Your task to perform on an android device: toggle data saver in the chrome app Image 0: 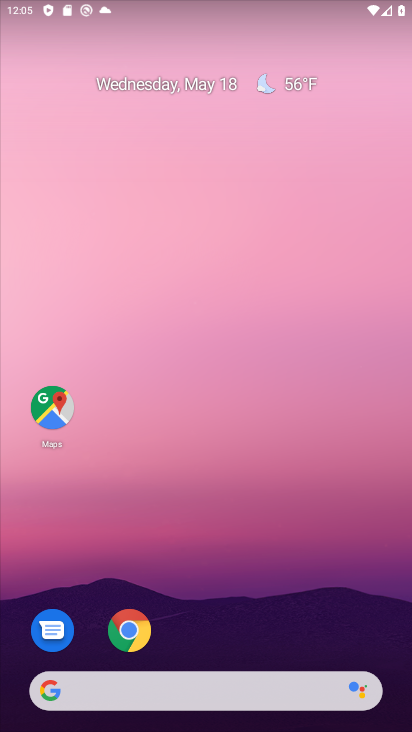
Step 0: click (129, 629)
Your task to perform on an android device: toggle data saver in the chrome app Image 1: 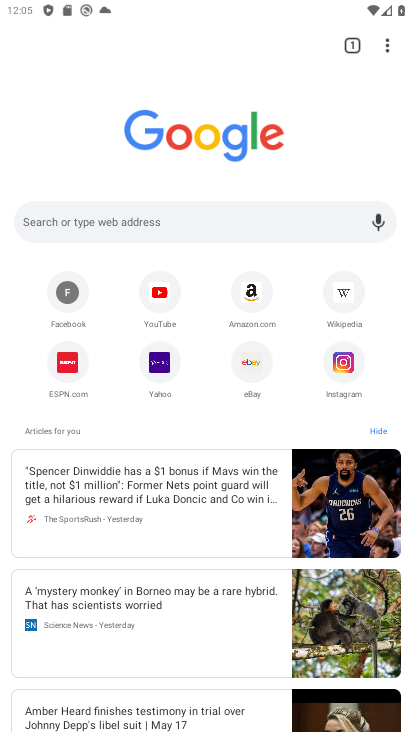
Step 1: click (384, 42)
Your task to perform on an android device: toggle data saver in the chrome app Image 2: 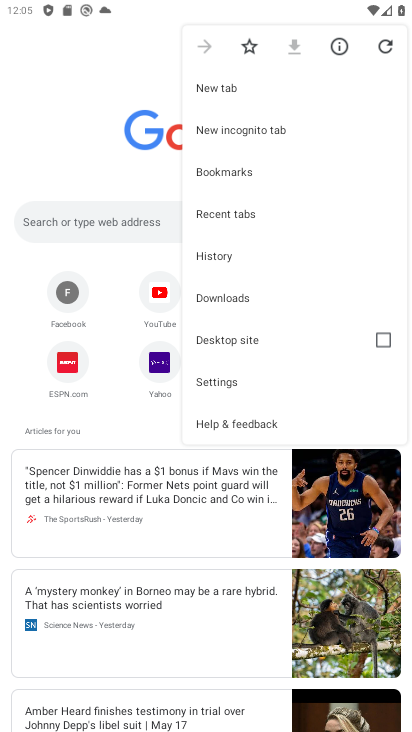
Step 2: click (246, 383)
Your task to perform on an android device: toggle data saver in the chrome app Image 3: 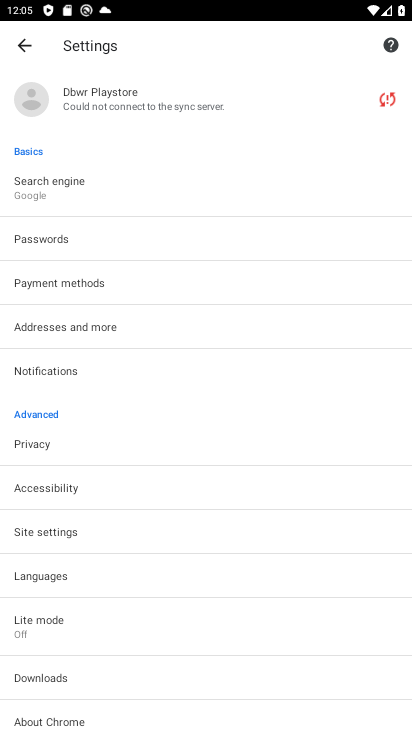
Step 3: drag from (183, 641) to (209, 221)
Your task to perform on an android device: toggle data saver in the chrome app Image 4: 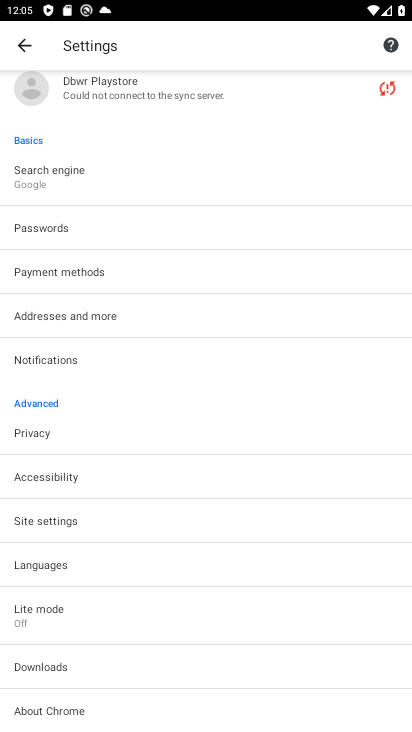
Step 4: click (77, 523)
Your task to perform on an android device: toggle data saver in the chrome app Image 5: 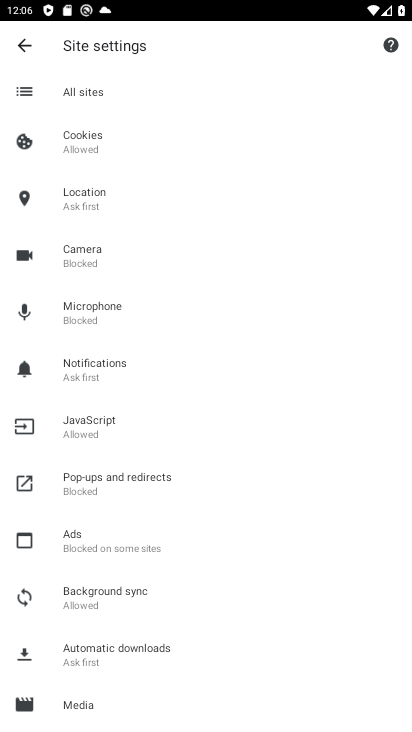
Step 5: drag from (239, 565) to (272, 161)
Your task to perform on an android device: toggle data saver in the chrome app Image 6: 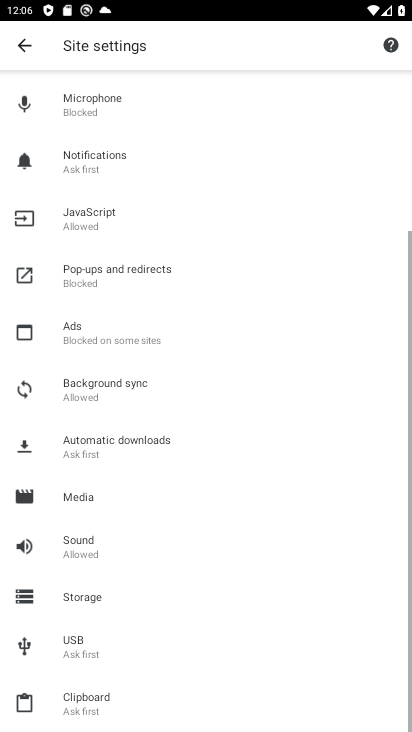
Step 6: drag from (197, 666) to (242, 214)
Your task to perform on an android device: toggle data saver in the chrome app Image 7: 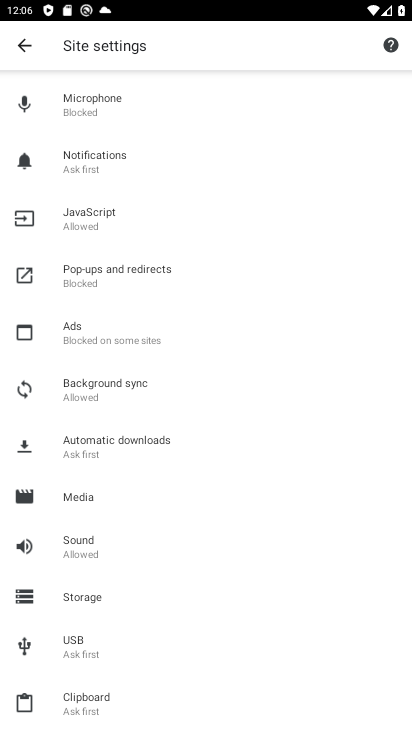
Step 7: press back button
Your task to perform on an android device: toggle data saver in the chrome app Image 8: 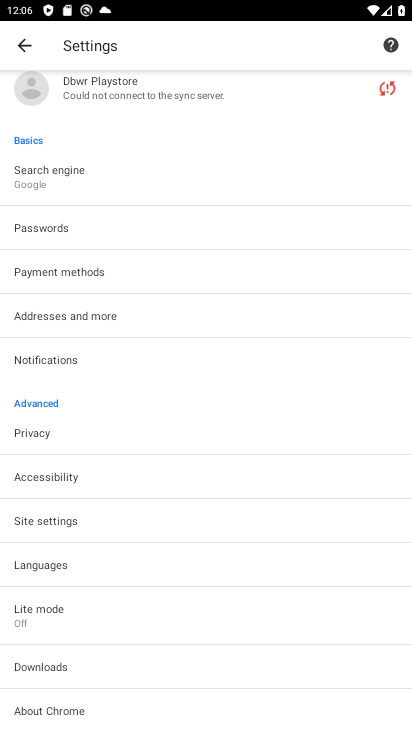
Step 8: click (61, 433)
Your task to perform on an android device: toggle data saver in the chrome app Image 9: 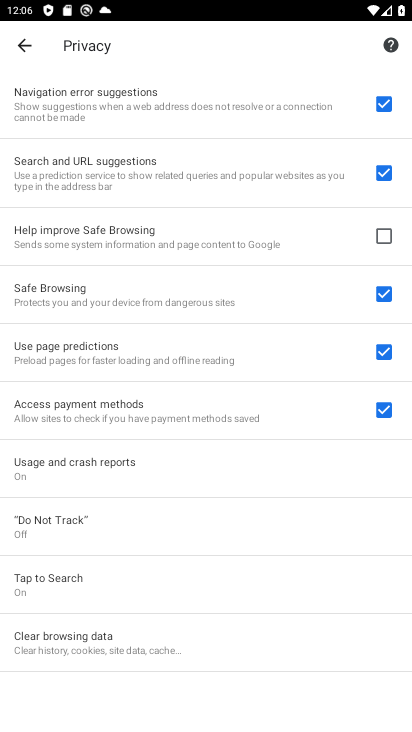
Step 9: drag from (206, 622) to (164, 78)
Your task to perform on an android device: toggle data saver in the chrome app Image 10: 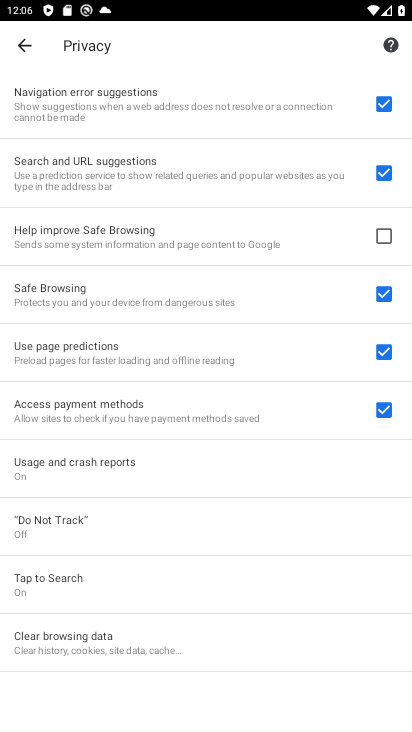
Step 10: press back button
Your task to perform on an android device: toggle data saver in the chrome app Image 11: 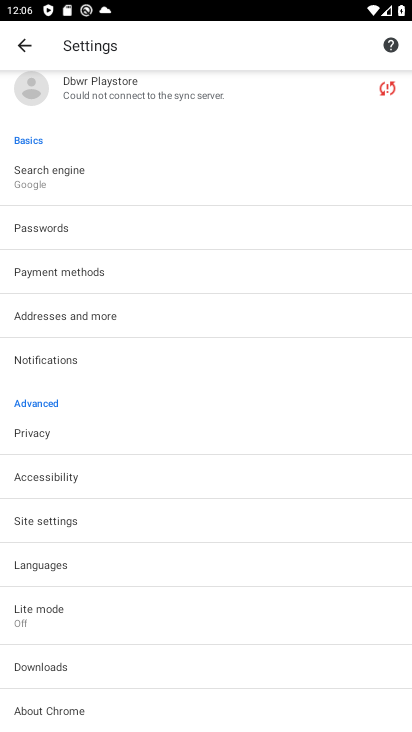
Step 11: click (82, 518)
Your task to perform on an android device: toggle data saver in the chrome app Image 12: 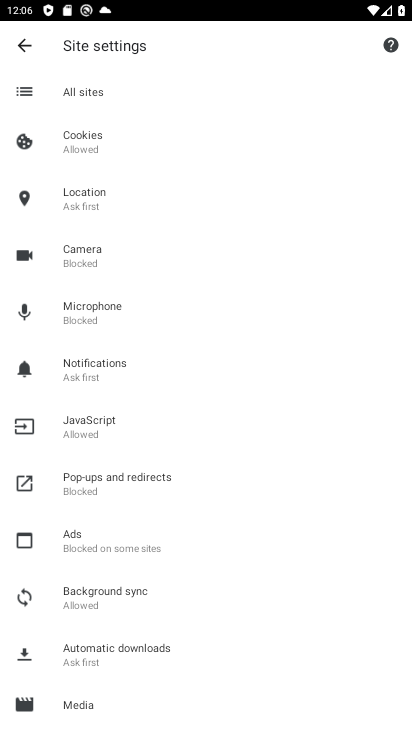
Step 12: drag from (247, 606) to (226, 273)
Your task to perform on an android device: toggle data saver in the chrome app Image 13: 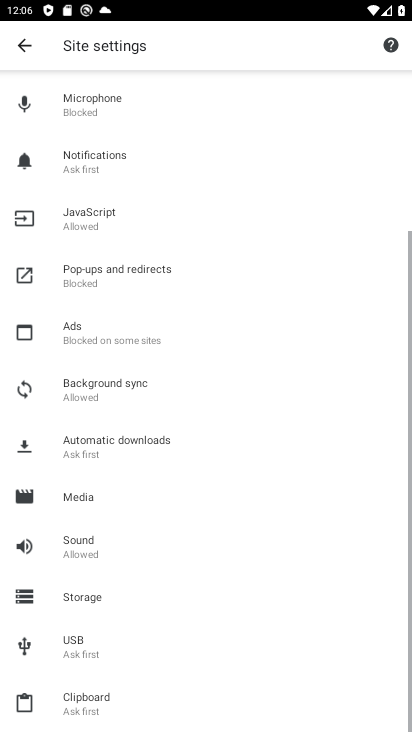
Step 13: drag from (194, 571) to (190, 6)
Your task to perform on an android device: toggle data saver in the chrome app Image 14: 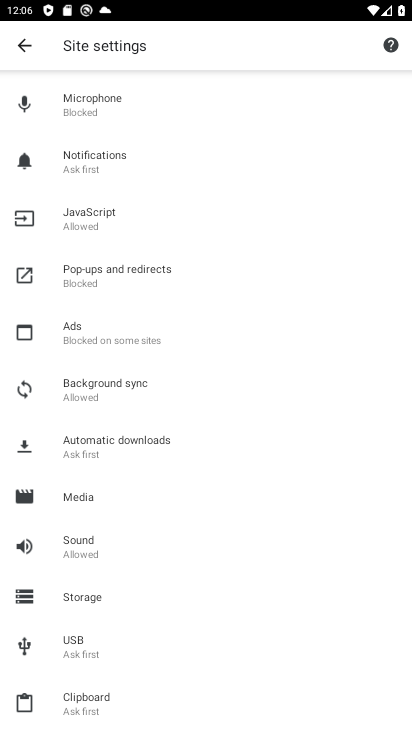
Step 14: press back button
Your task to perform on an android device: toggle data saver in the chrome app Image 15: 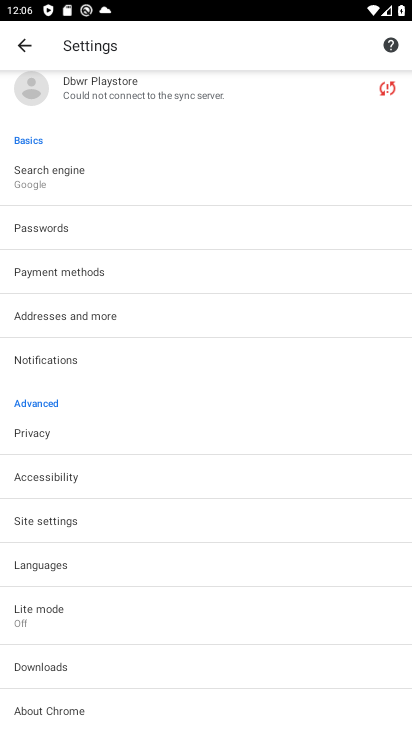
Step 15: drag from (161, 588) to (179, 184)
Your task to perform on an android device: toggle data saver in the chrome app Image 16: 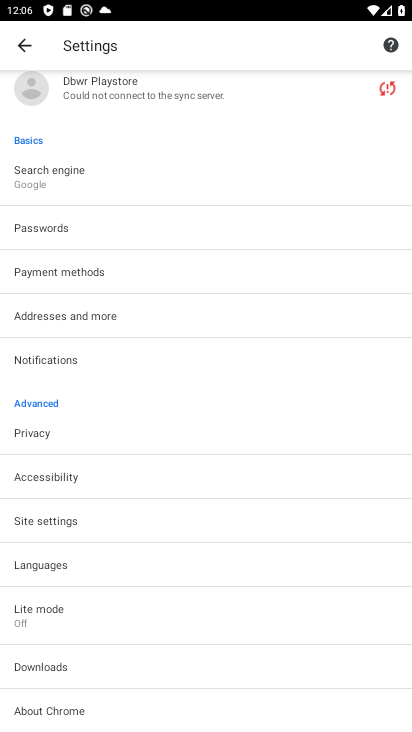
Step 16: click (59, 478)
Your task to perform on an android device: toggle data saver in the chrome app Image 17: 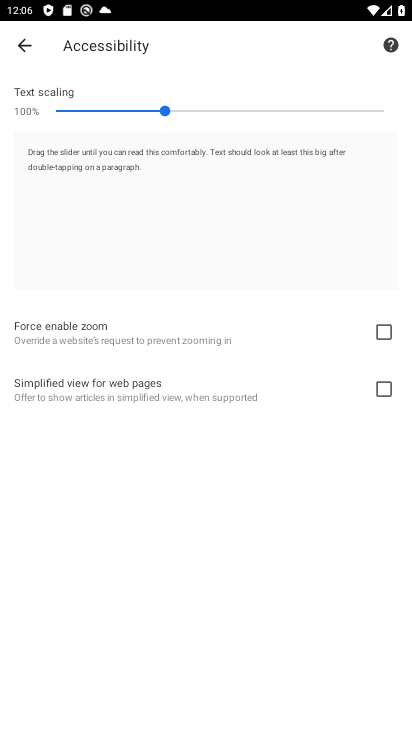
Step 17: task complete